Your task to perform on an android device: turn off improve location accuracy Image 0: 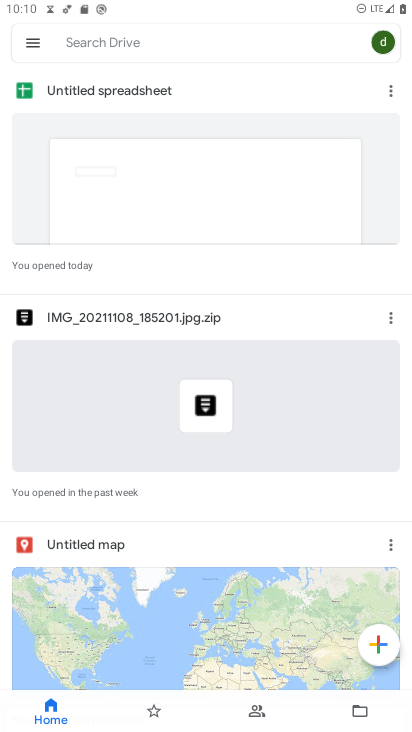
Step 0: press home button
Your task to perform on an android device: turn off improve location accuracy Image 1: 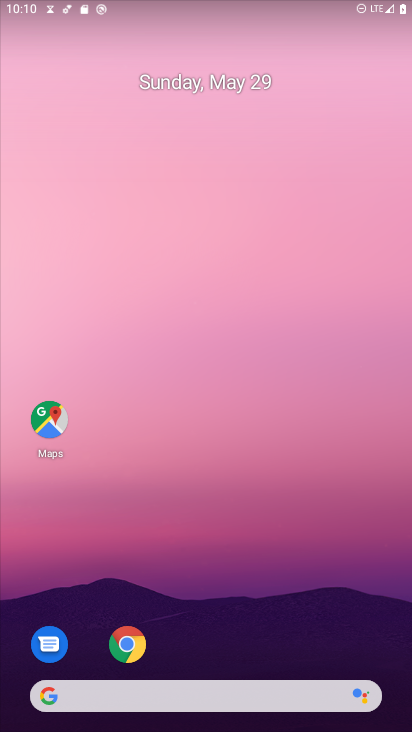
Step 1: drag from (125, 707) to (256, 108)
Your task to perform on an android device: turn off improve location accuracy Image 2: 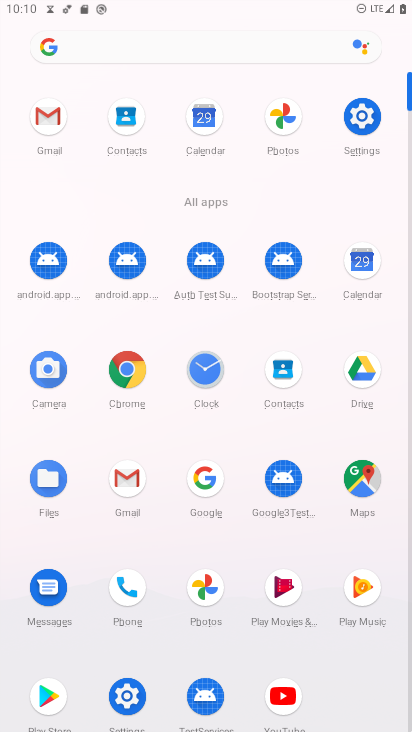
Step 2: click (134, 687)
Your task to perform on an android device: turn off improve location accuracy Image 3: 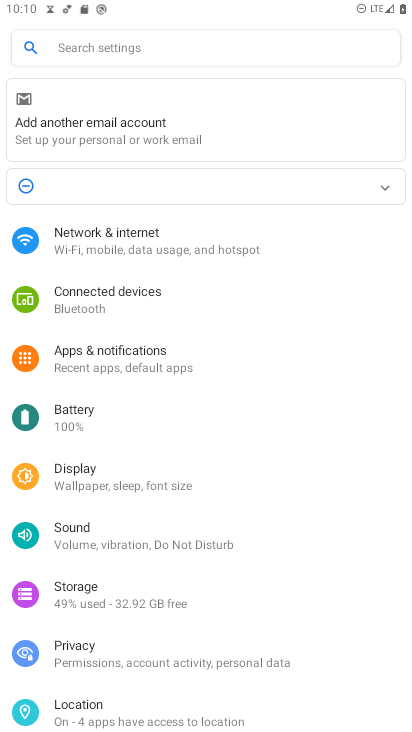
Step 3: click (137, 710)
Your task to perform on an android device: turn off improve location accuracy Image 4: 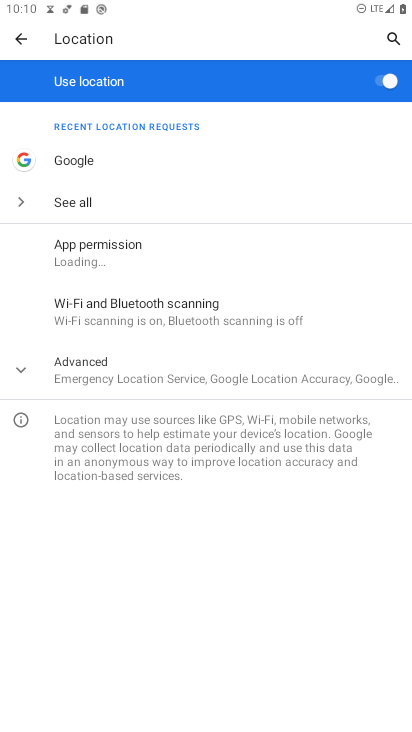
Step 4: click (199, 367)
Your task to perform on an android device: turn off improve location accuracy Image 5: 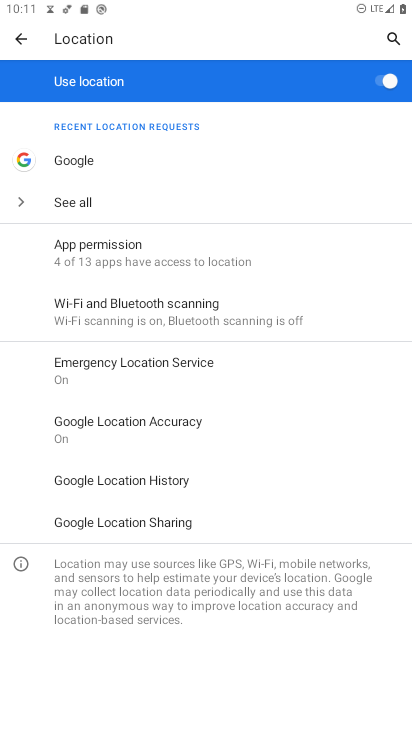
Step 5: click (96, 433)
Your task to perform on an android device: turn off improve location accuracy Image 6: 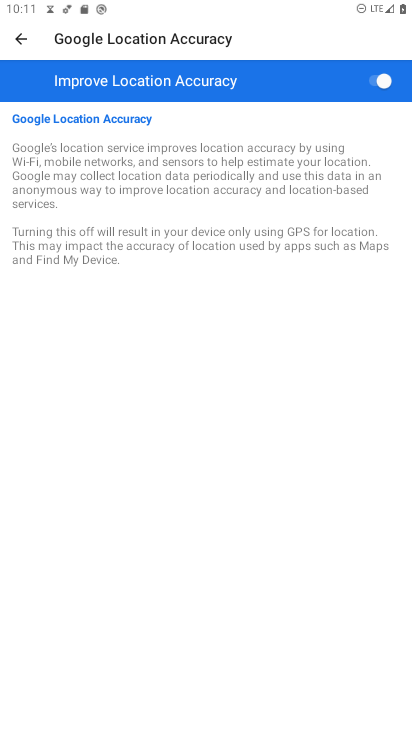
Step 6: click (383, 81)
Your task to perform on an android device: turn off improve location accuracy Image 7: 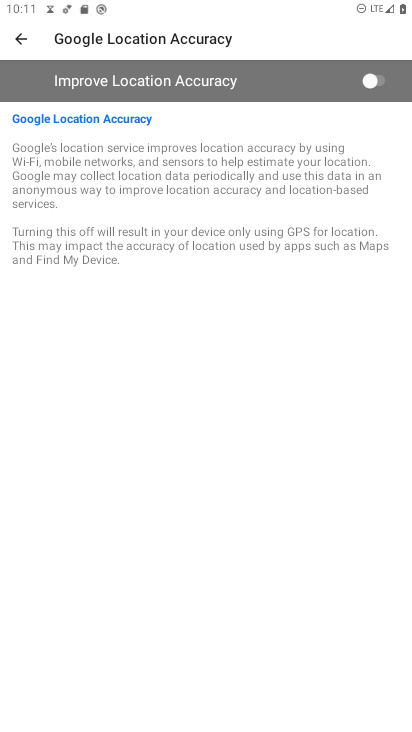
Step 7: task complete